Your task to perform on an android device: Go to settings Image 0: 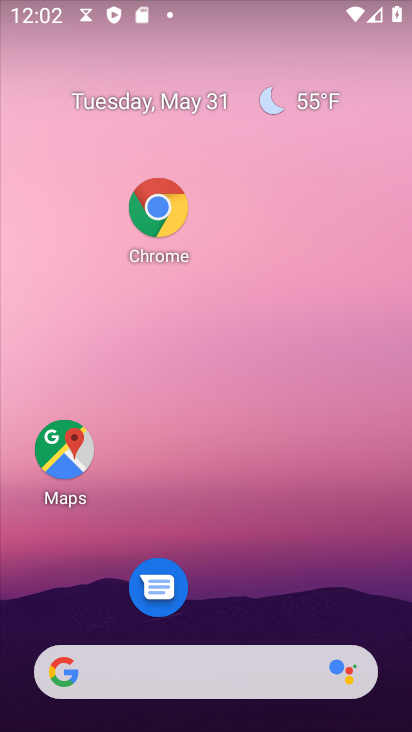
Step 0: drag from (228, 564) to (248, 182)
Your task to perform on an android device: Go to settings Image 1: 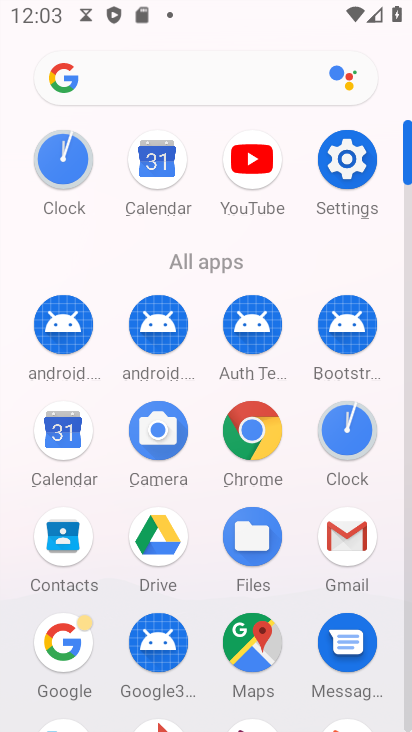
Step 1: click (340, 165)
Your task to perform on an android device: Go to settings Image 2: 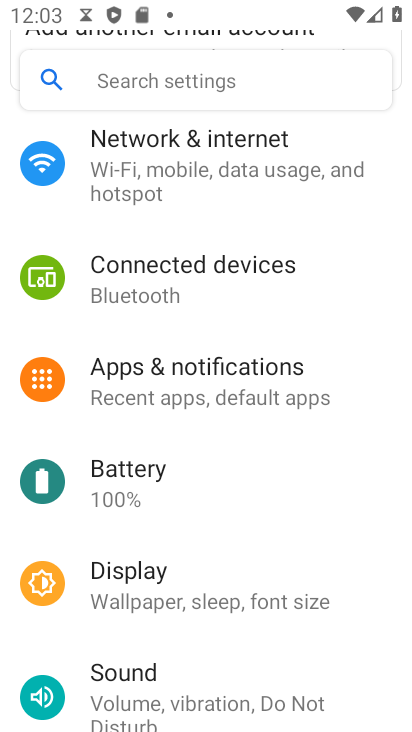
Step 2: task complete